Your task to perform on an android device: add a contact Image 0: 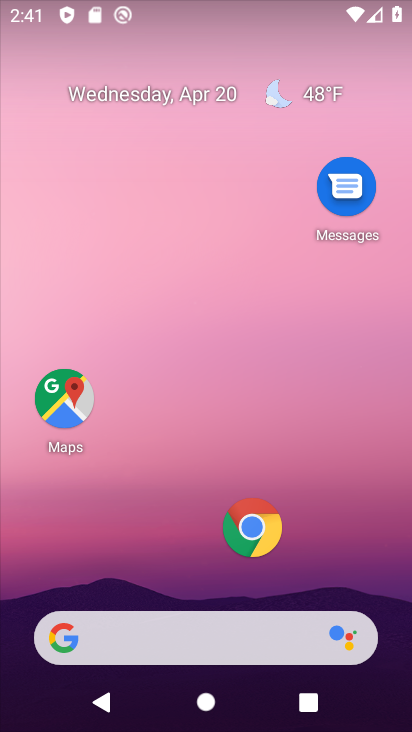
Step 0: drag from (170, 590) to (354, 33)
Your task to perform on an android device: add a contact Image 1: 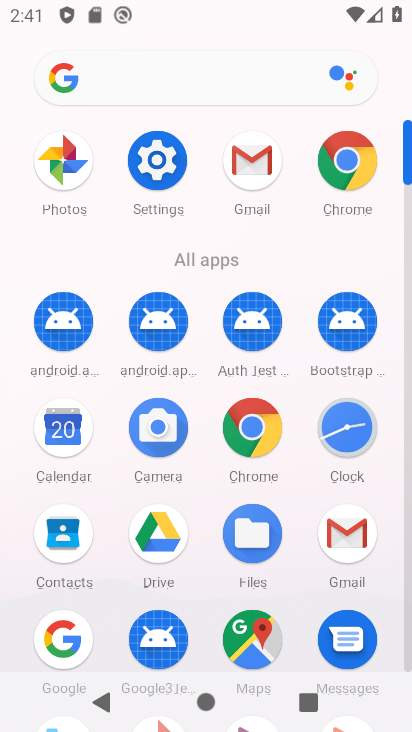
Step 1: click (55, 548)
Your task to perform on an android device: add a contact Image 2: 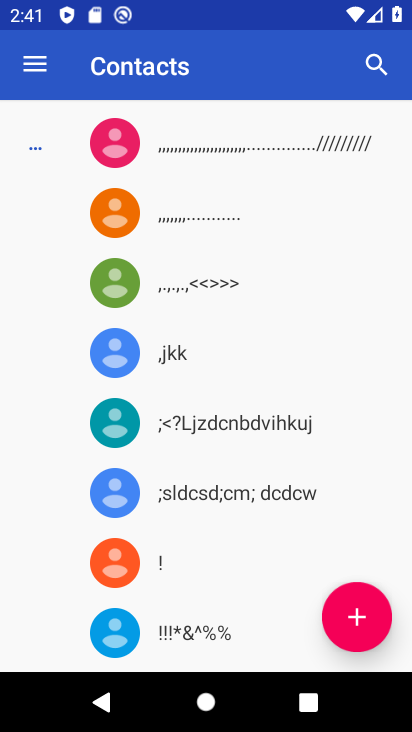
Step 2: click (353, 608)
Your task to perform on an android device: add a contact Image 3: 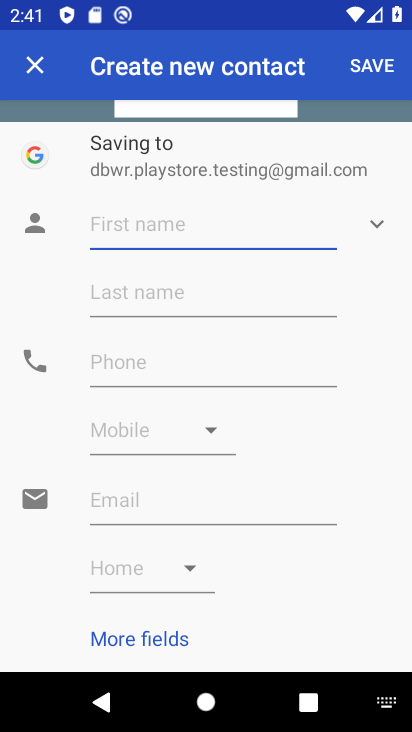
Step 3: click (170, 222)
Your task to perform on an android device: add a contact Image 4: 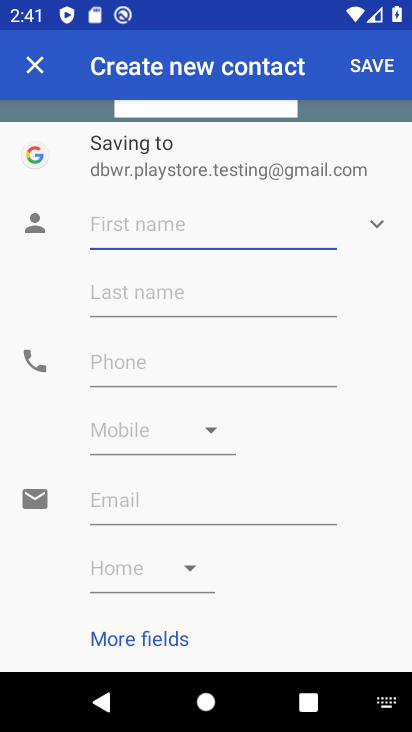
Step 4: type "mhjuyghjyuh"
Your task to perform on an android device: add a contact Image 5: 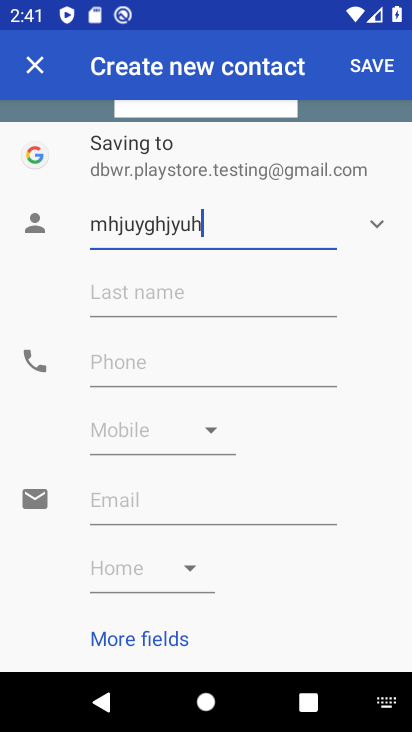
Step 5: click (103, 360)
Your task to perform on an android device: add a contact Image 6: 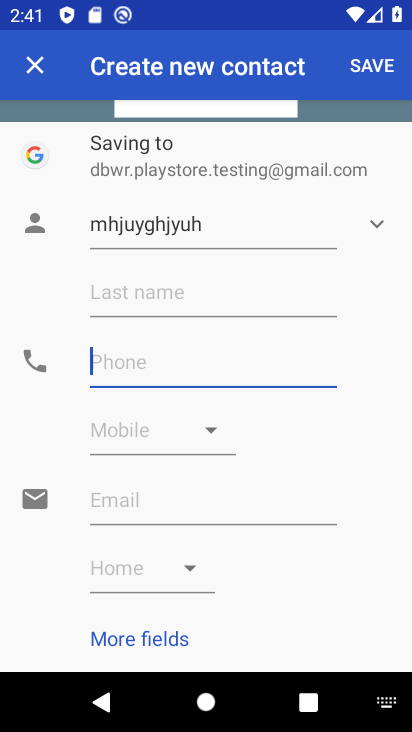
Step 6: type "265376548"
Your task to perform on an android device: add a contact Image 7: 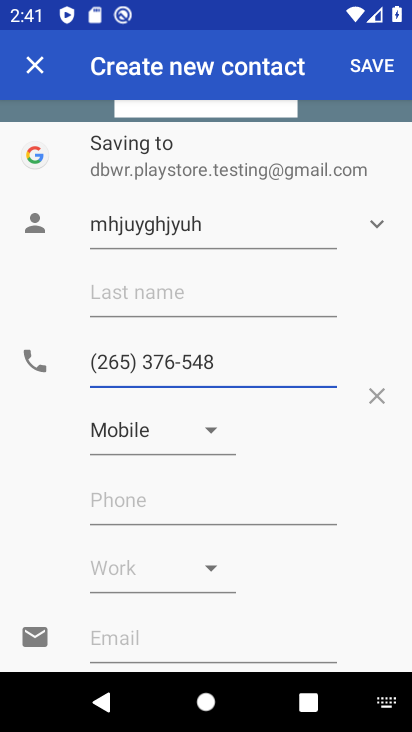
Step 7: click (369, 61)
Your task to perform on an android device: add a contact Image 8: 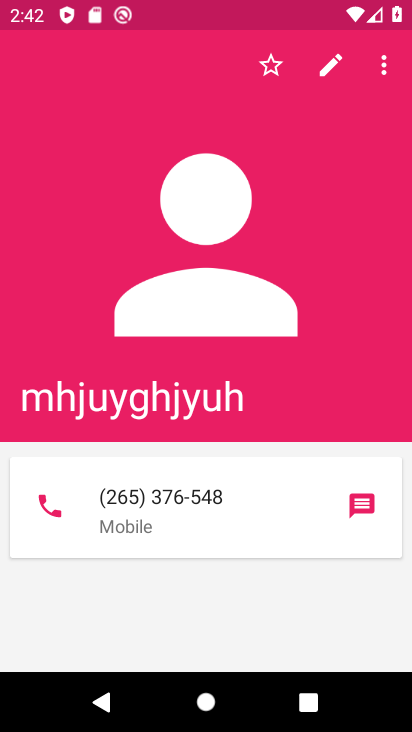
Step 8: task complete